Your task to perform on an android device: Go to CNN.com Image 0: 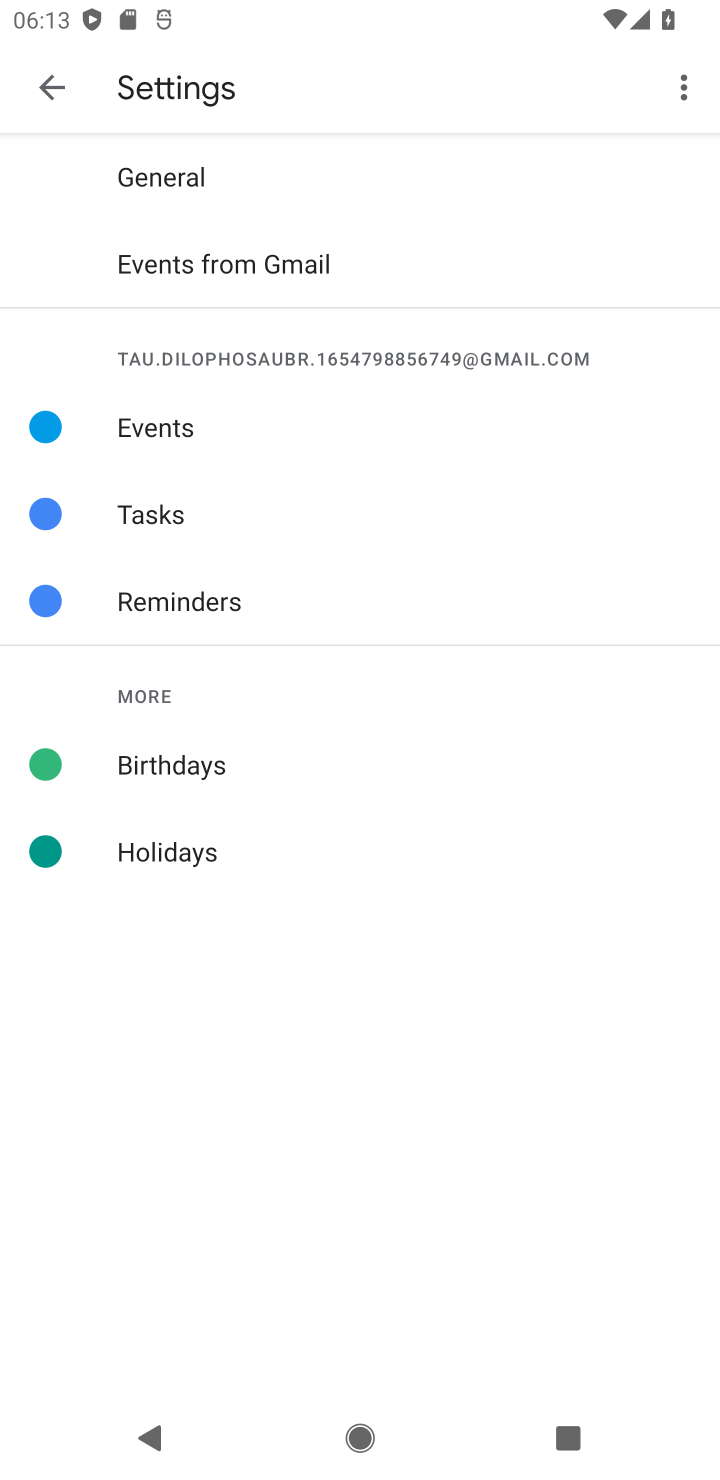
Step 0: press home button
Your task to perform on an android device: Go to CNN.com Image 1: 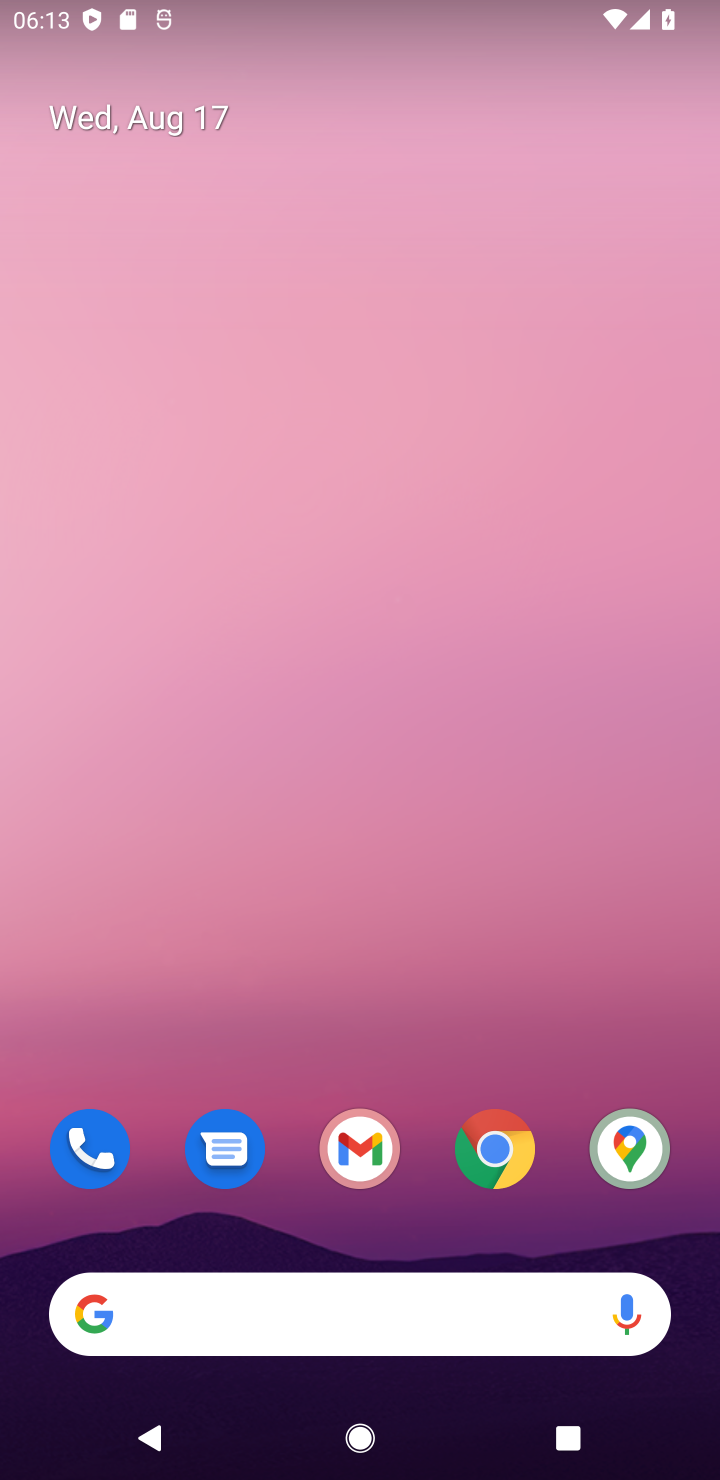
Step 1: click (291, 1299)
Your task to perform on an android device: Go to CNN.com Image 2: 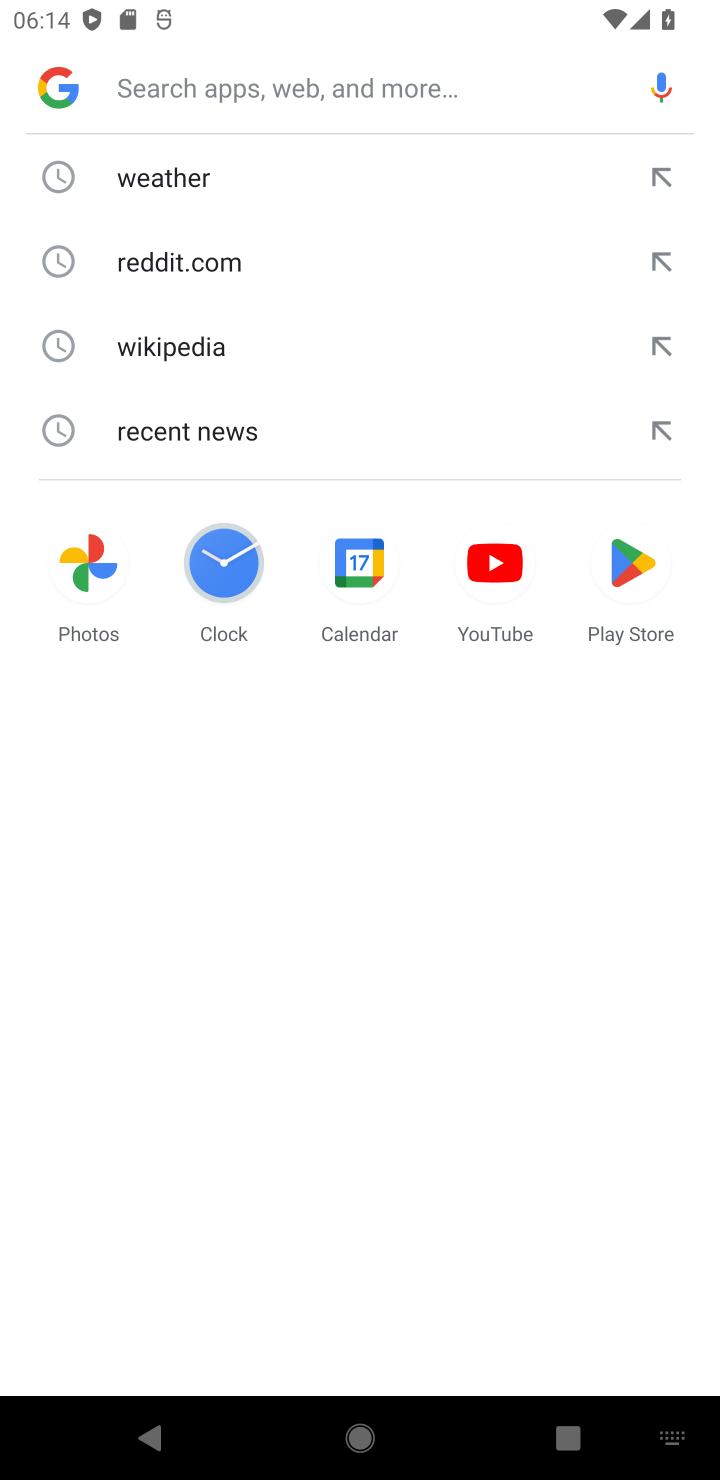
Step 2: type "cnn.com"
Your task to perform on an android device: Go to CNN.com Image 3: 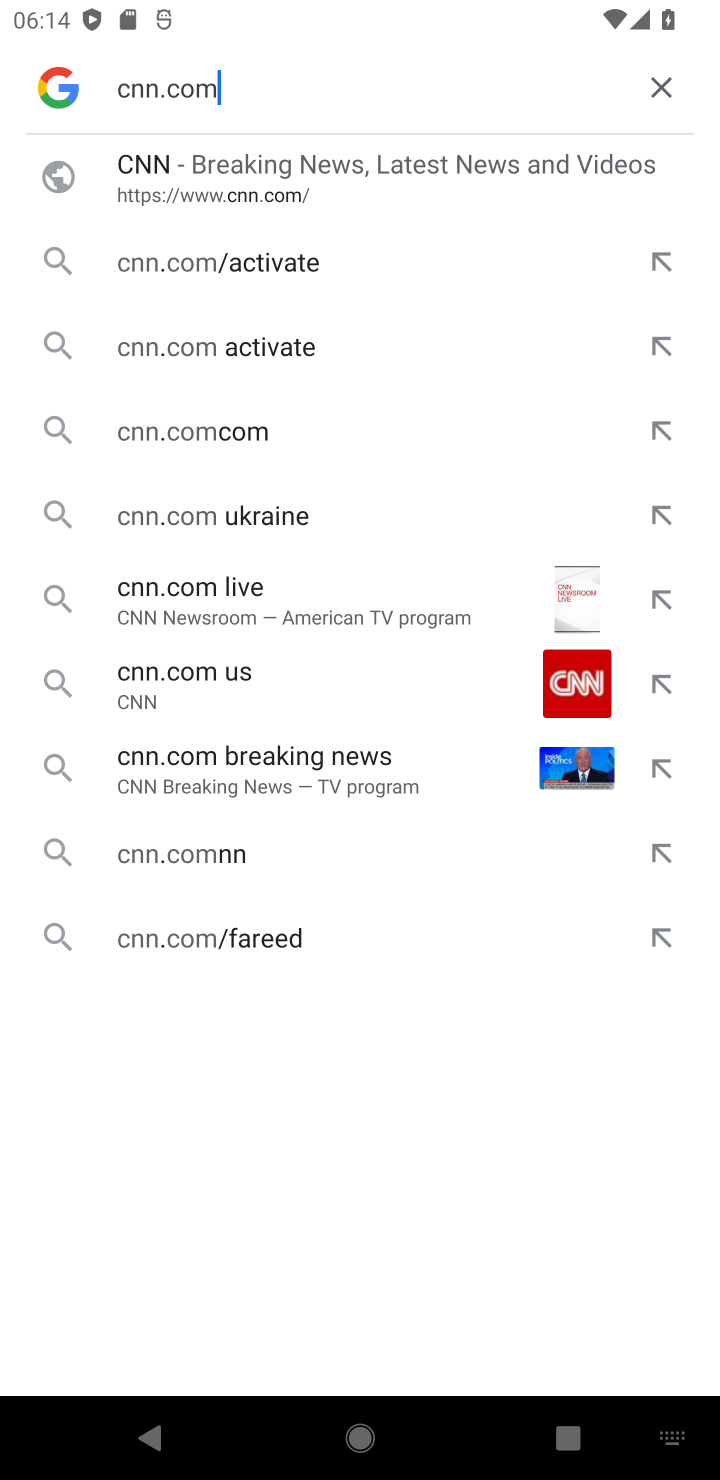
Step 3: click (185, 164)
Your task to perform on an android device: Go to CNN.com Image 4: 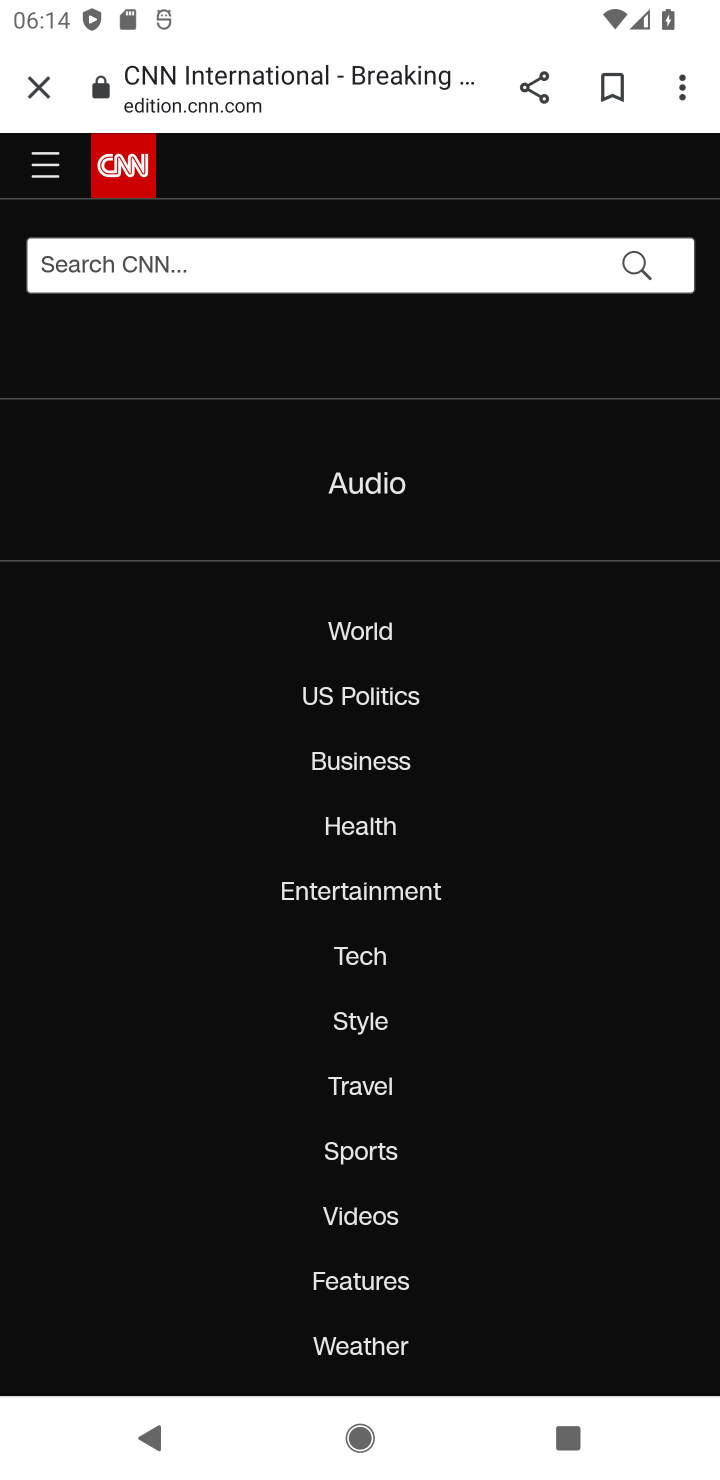
Step 4: task complete